Your task to perform on an android device: allow cookies in the chrome app Image 0: 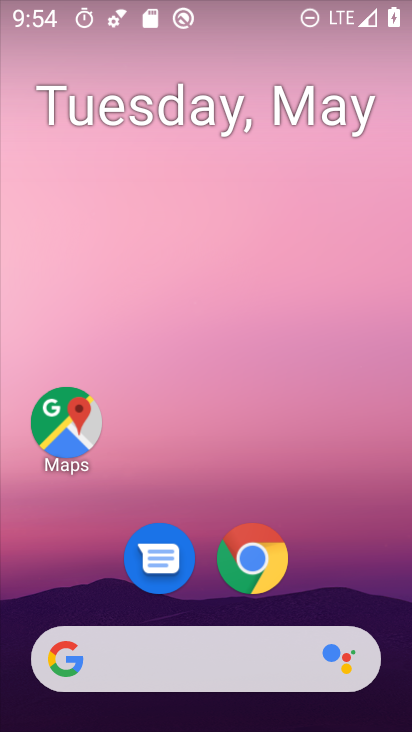
Step 0: drag from (388, 637) to (326, 57)
Your task to perform on an android device: allow cookies in the chrome app Image 1: 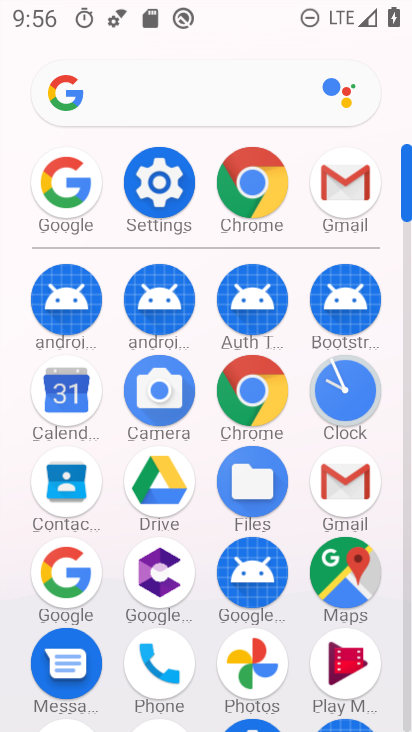
Step 1: click (262, 400)
Your task to perform on an android device: allow cookies in the chrome app Image 2: 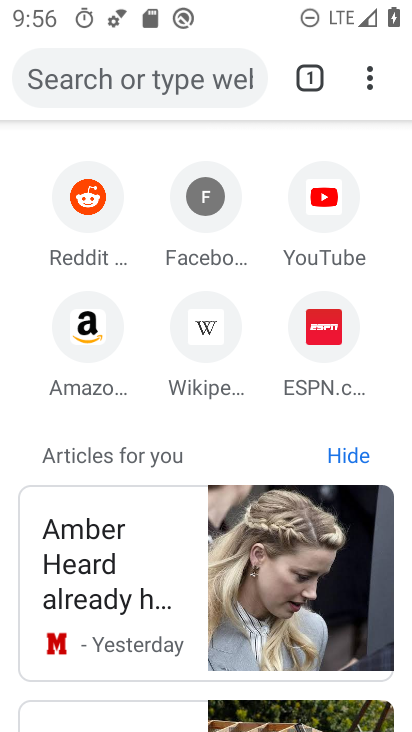
Step 2: click (380, 72)
Your task to perform on an android device: allow cookies in the chrome app Image 3: 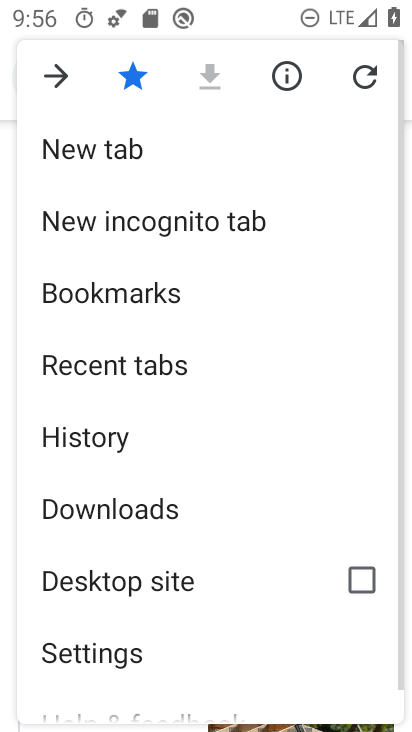
Step 3: click (107, 450)
Your task to perform on an android device: allow cookies in the chrome app Image 4: 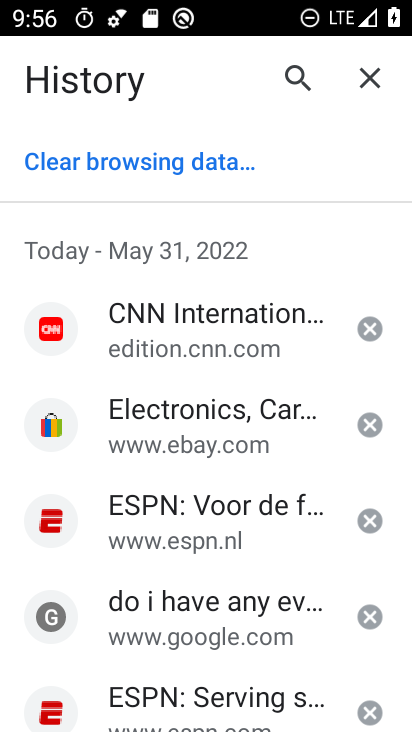
Step 4: click (167, 175)
Your task to perform on an android device: allow cookies in the chrome app Image 5: 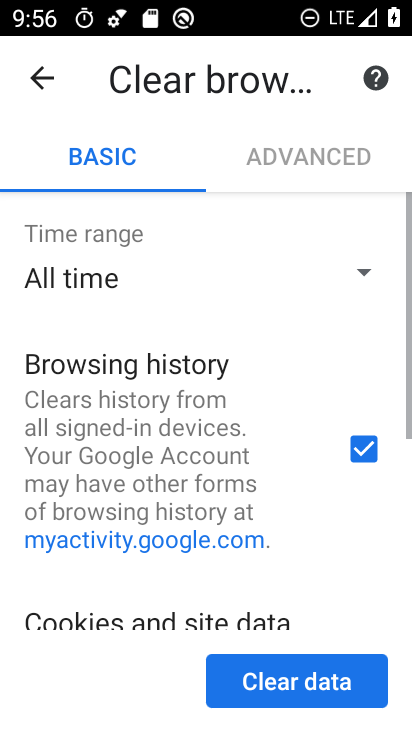
Step 5: task complete